Your task to perform on an android device: Open calendar and show me the fourth week of next month Image 0: 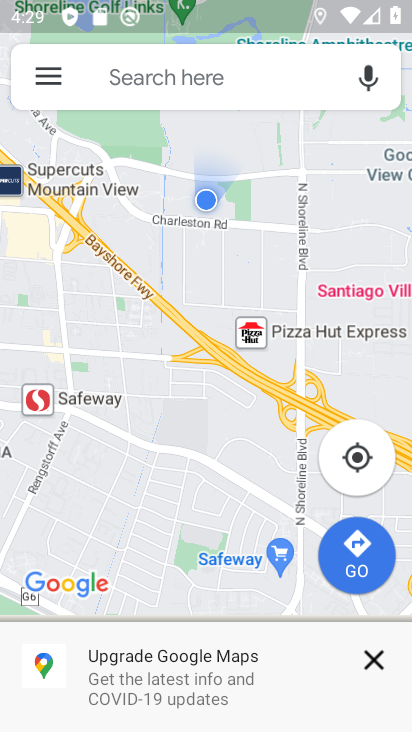
Step 0: press home button
Your task to perform on an android device: Open calendar and show me the fourth week of next month Image 1: 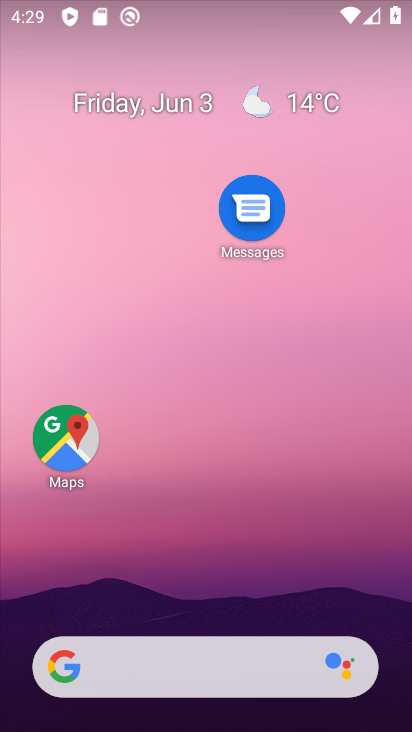
Step 1: drag from (246, 583) to (263, 241)
Your task to perform on an android device: Open calendar and show me the fourth week of next month Image 2: 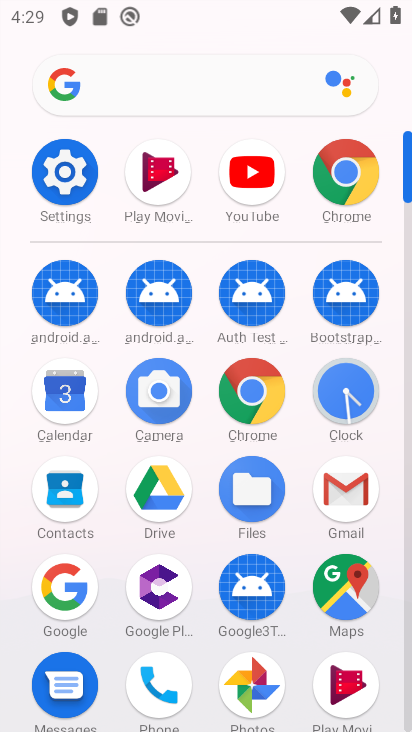
Step 2: click (63, 393)
Your task to perform on an android device: Open calendar and show me the fourth week of next month Image 3: 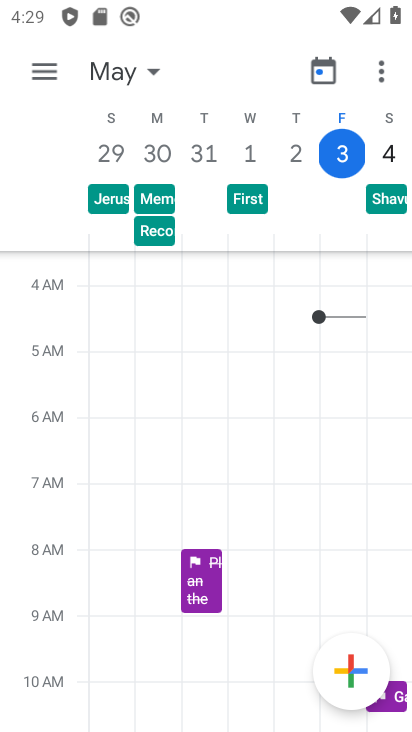
Step 3: click (118, 77)
Your task to perform on an android device: Open calendar and show me the fourth week of next month Image 4: 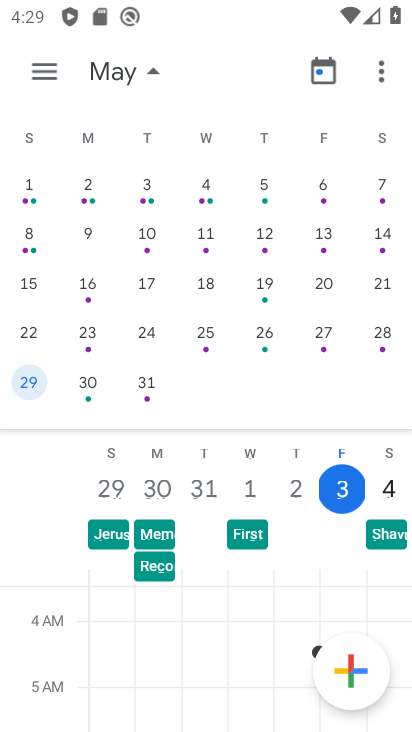
Step 4: drag from (347, 194) to (22, 210)
Your task to perform on an android device: Open calendar and show me the fourth week of next month Image 5: 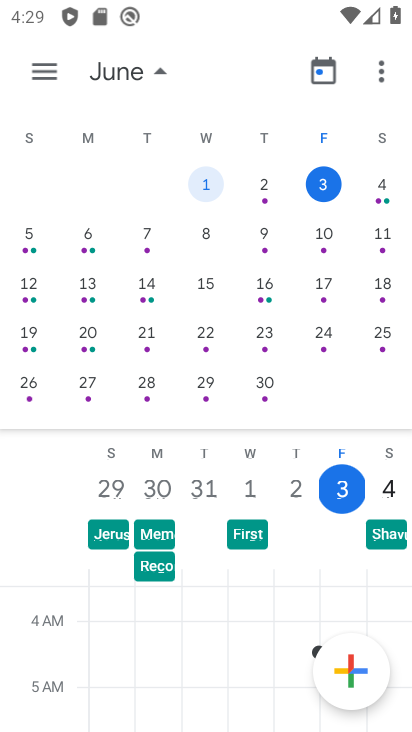
Step 5: drag from (319, 288) to (0, 290)
Your task to perform on an android device: Open calendar and show me the fourth week of next month Image 6: 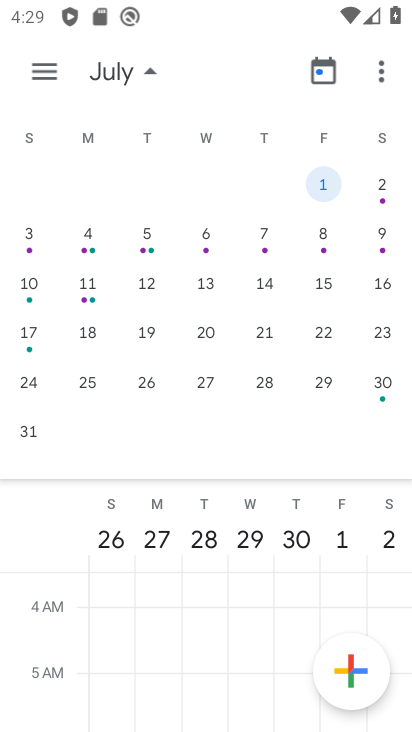
Step 6: click (29, 384)
Your task to perform on an android device: Open calendar and show me the fourth week of next month Image 7: 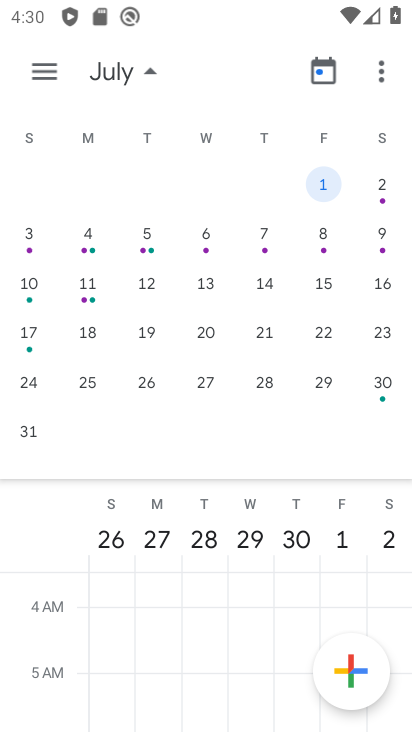
Step 7: click (33, 381)
Your task to perform on an android device: Open calendar and show me the fourth week of next month Image 8: 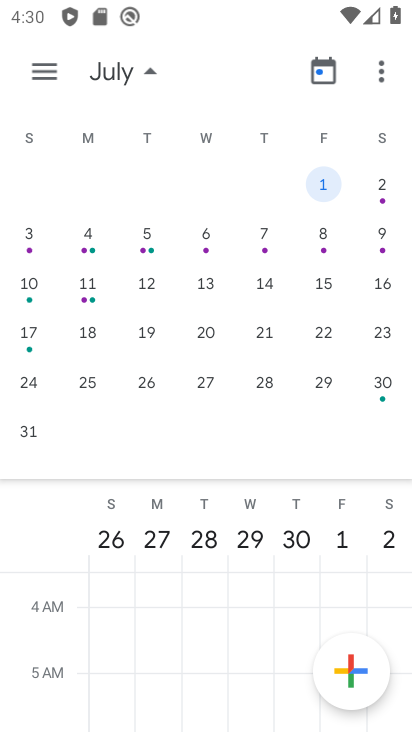
Step 8: click (33, 381)
Your task to perform on an android device: Open calendar and show me the fourth week of next month Image 9: 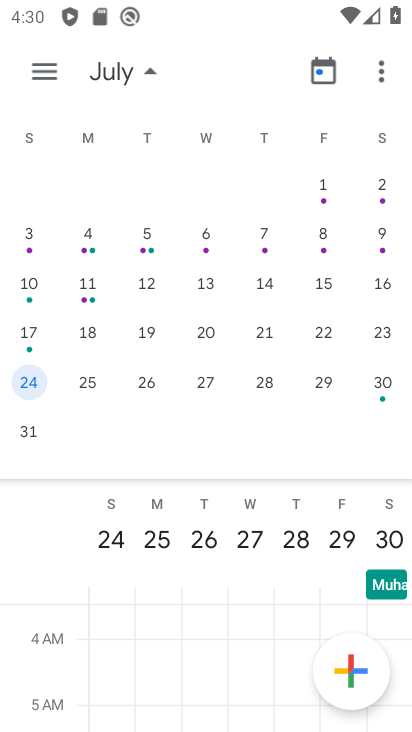
Step 9: task complete